Your task to perform on an android device: open app "Truecaller" (install if not already installed) Image 0: 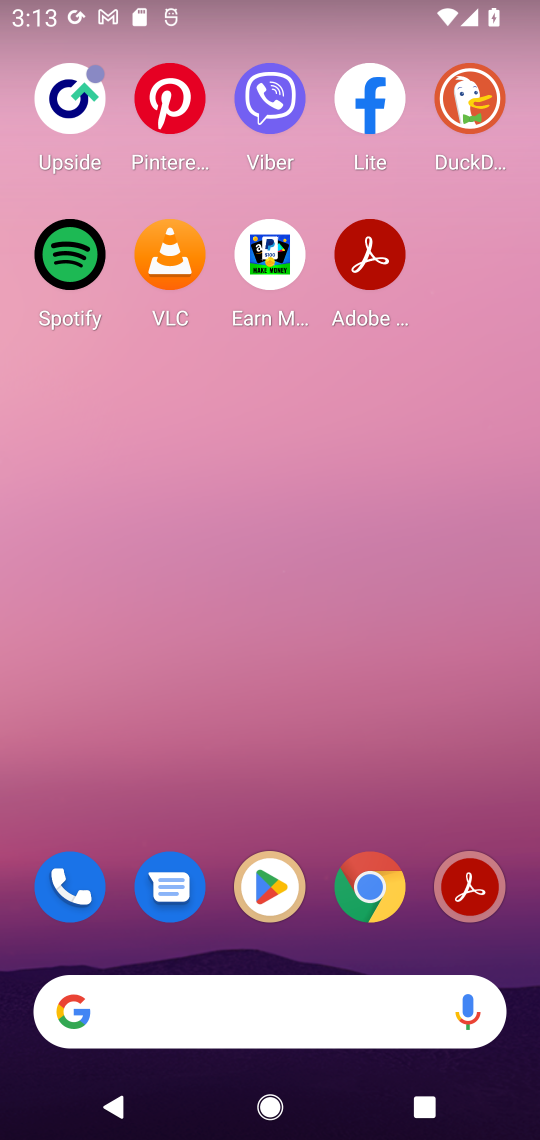
Step 0: click (260, 883)
Your task to perform on an android device: open app "Truecaller" (install if not already installed) Image 1: 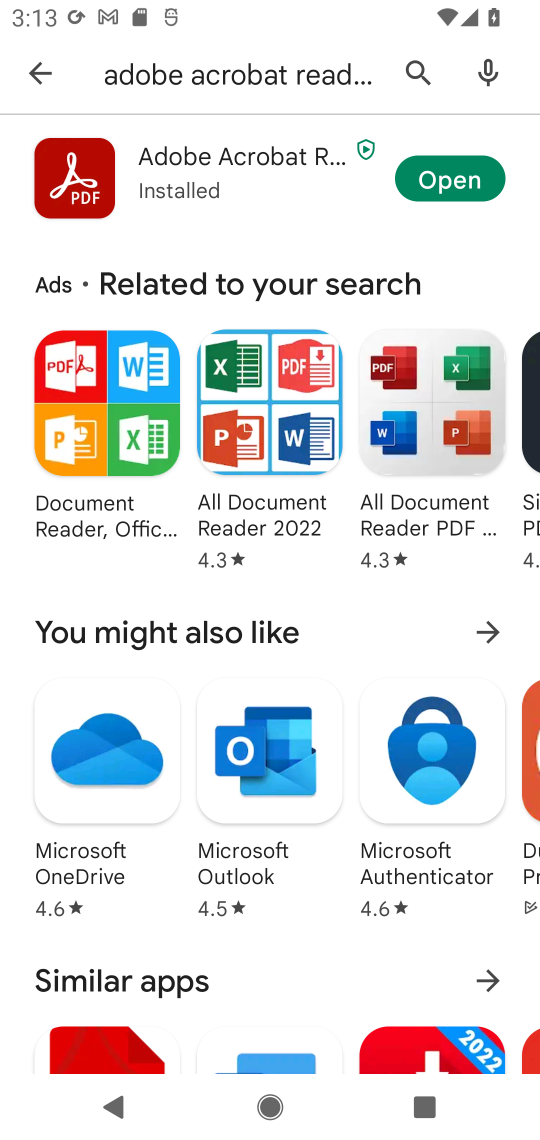
Step 1: click (397, 59)
Your task to perform on an android device: open app "Truecaller" (install if not already installed) Image 2: 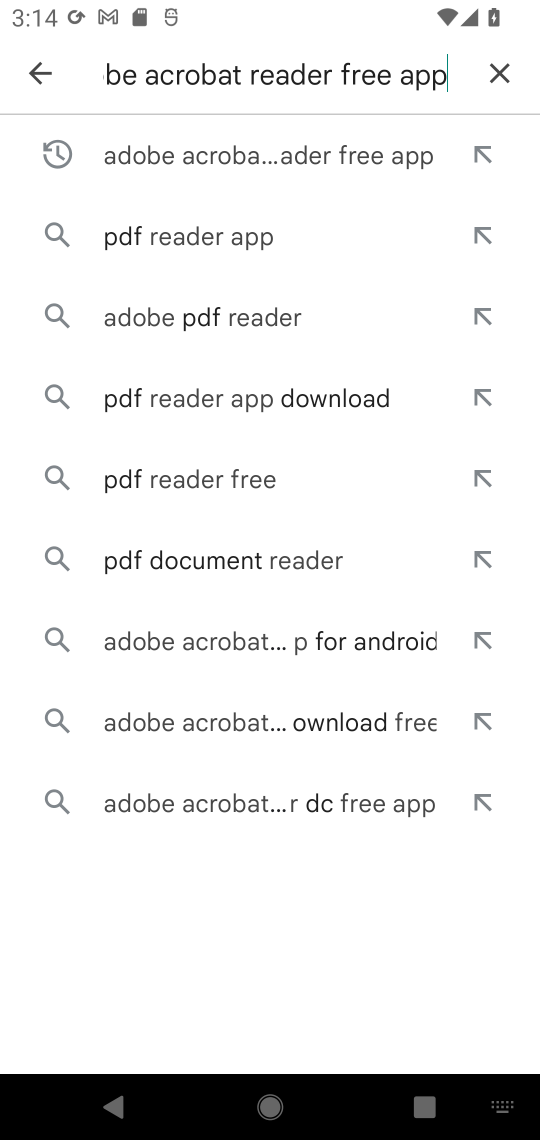
Step 2: click (500, 72)
Your task to perform on an android device: open app "Truecaller" (install if not already installed) Image 3: 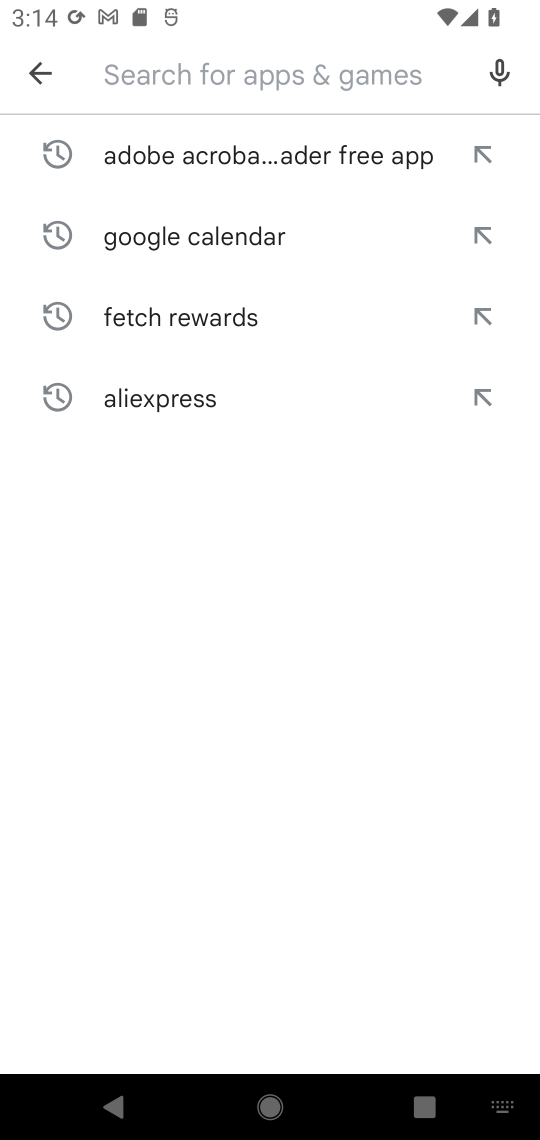
Step 3: type "Truecaller"
Your task to perform on an android device: open app "Truecaller" (install if not already installed) Image 4: 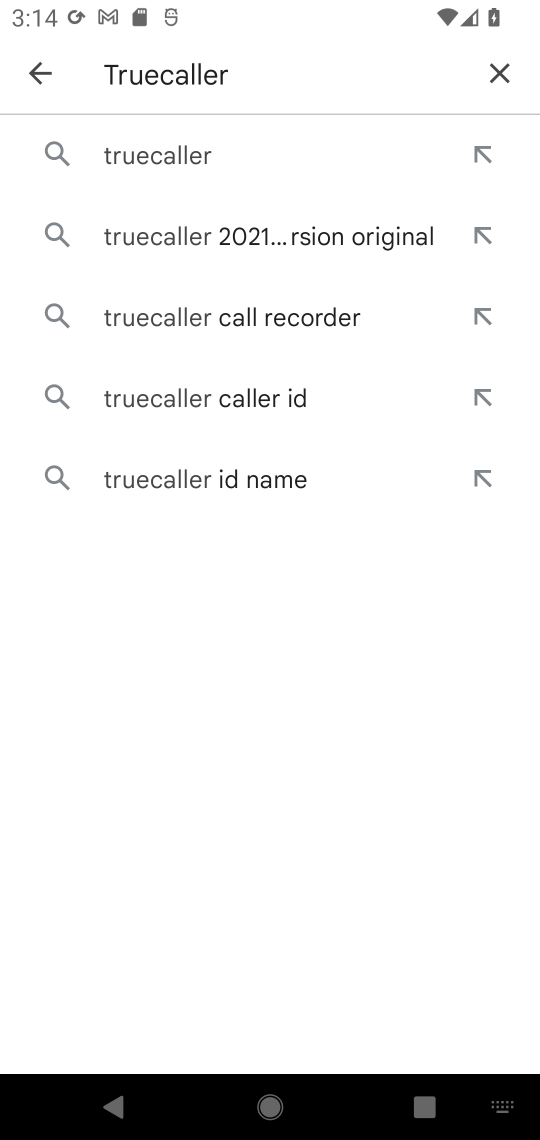
Step 4: click (170, 153)
Your task to perform on an android device: open app "Truecaller" (install if not already installed) Image 5: 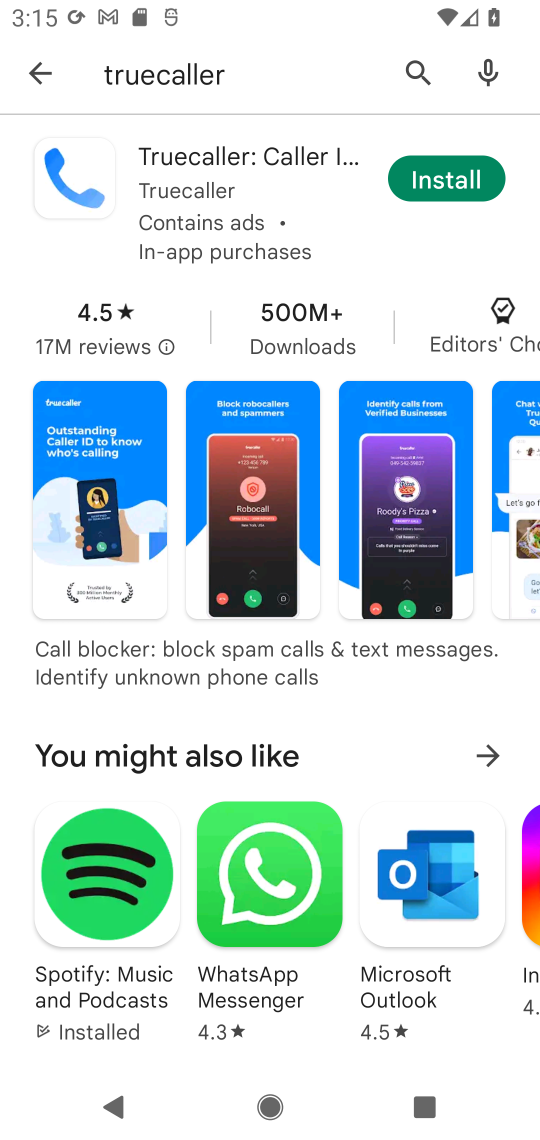
Step 5: click (449, 181)
Your task to perform on an android device: open app "Truecaller" (install if not already installed) Image 6: 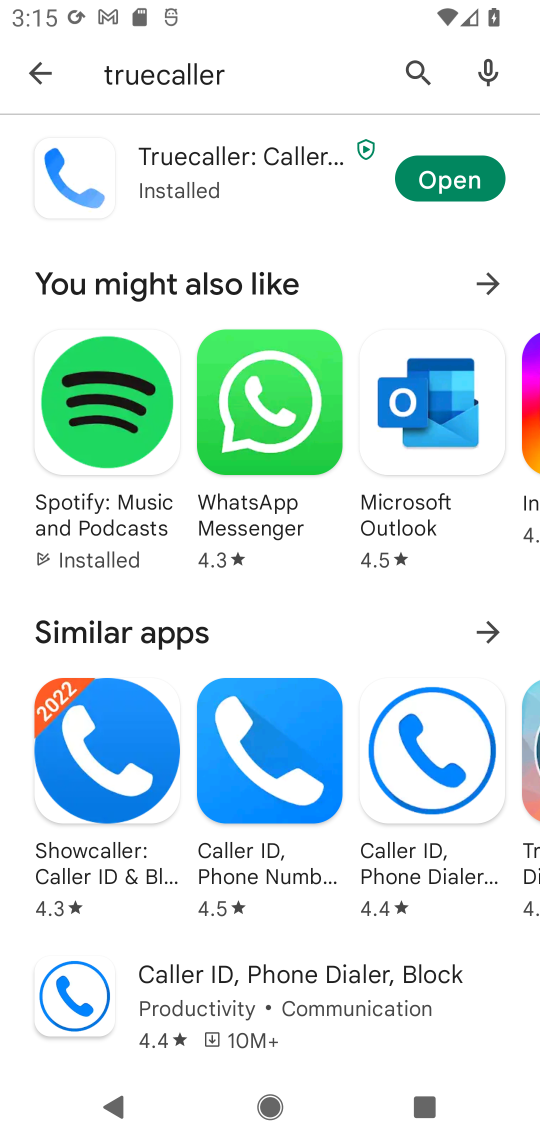
Step 6: click (445, 177)
Your task to perform on an android device: open app "Truecaller" (install if not already installed) Image 7: 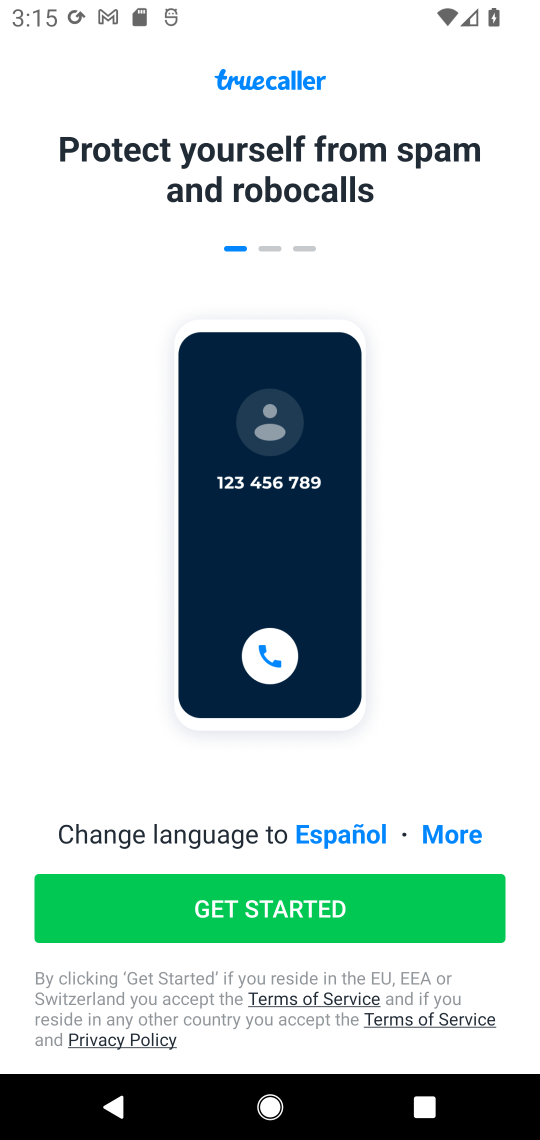
Step 7: click (251, 908)
Your task to perform on an android device: open app "Truecaller" (install if not already installed) Image 8: 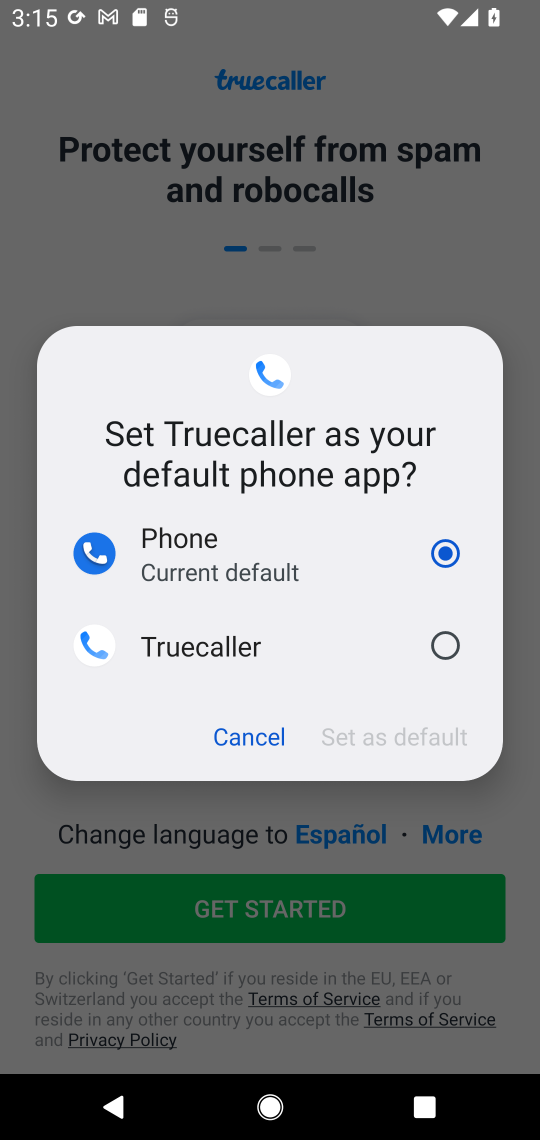
Step 8: click (446, 639)
Your task to perform on an android device: open app "Truecaller" (install if not already installed) Image 9: 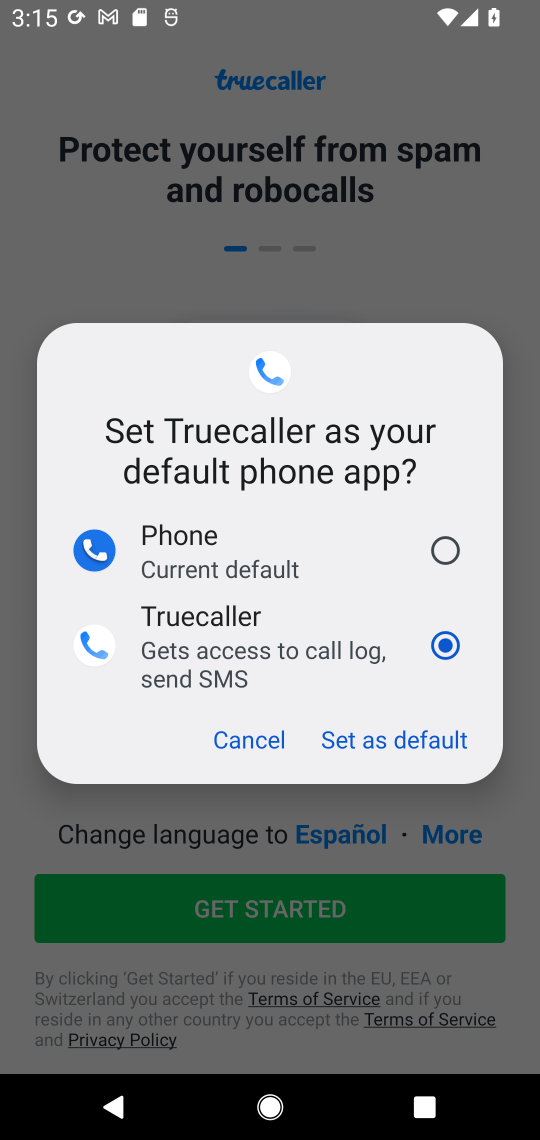
Step 9: click (400, 735)
Your task to perform on an android device: open app "Truecaller" (install if not already installed) Image 10: 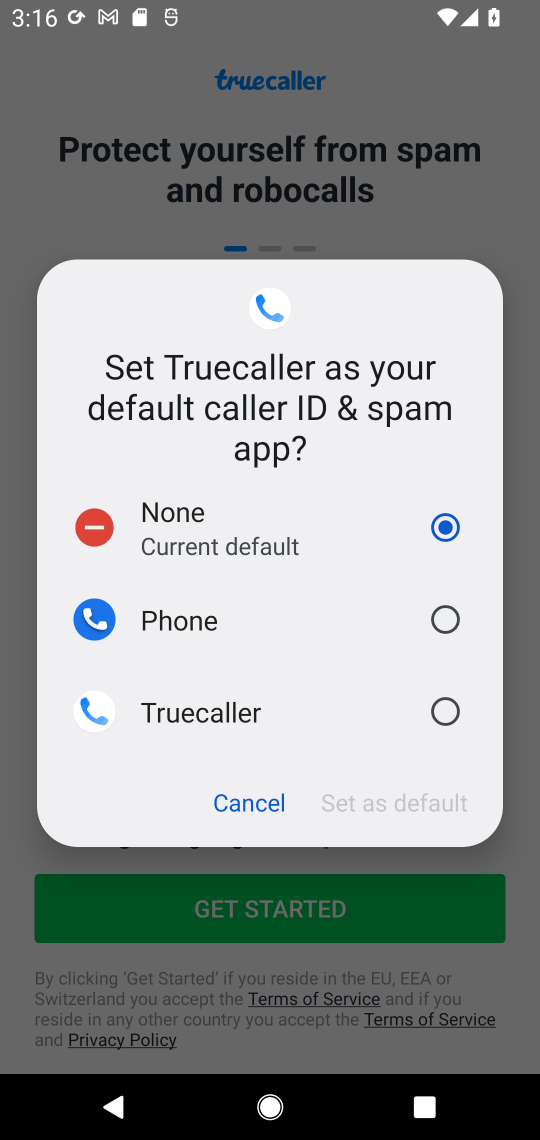
Step 10: click (440, 616)
Your task to perform on an android device: open app "Truecaller" (install if not already installed) Image 11: 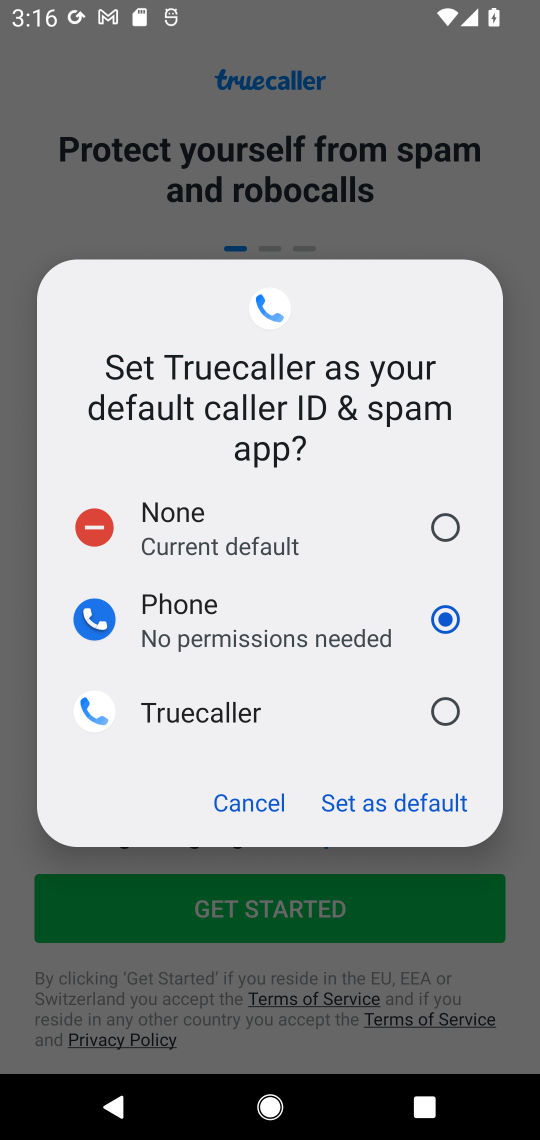
Step 11: click (421, 804)
Your task to perform on an android device: open app "Truecaller" (install if not already installed) Image 12: 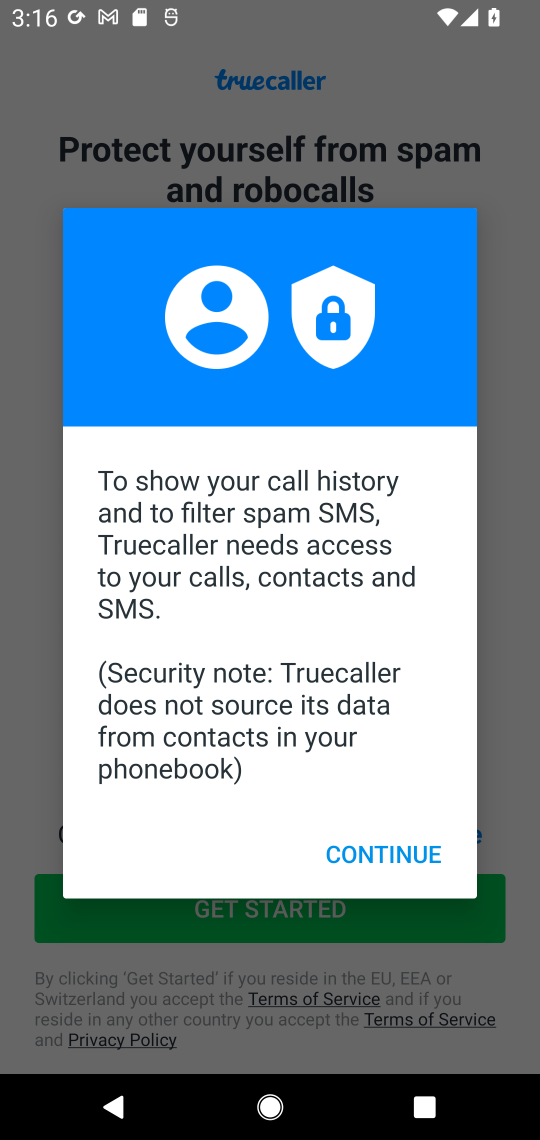
Step 12: click (380, 843)
Your task to perform on an android device: open app "Truecaller" (install if not already installed) Image 13: 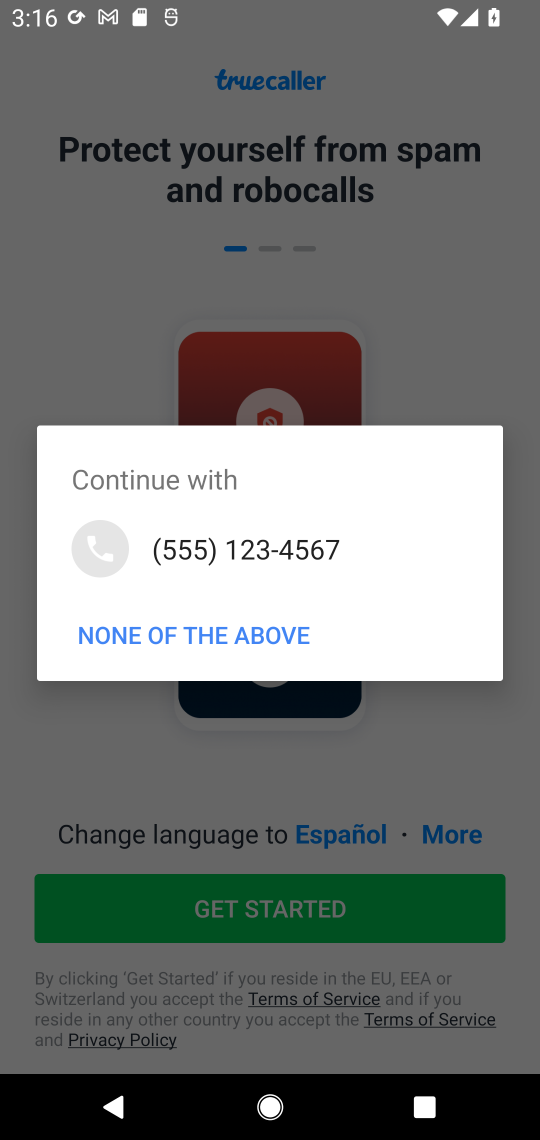
Step 13: task complete